Your task to perform on an android device: allow notifications from all sites in the chrome app Image 0: 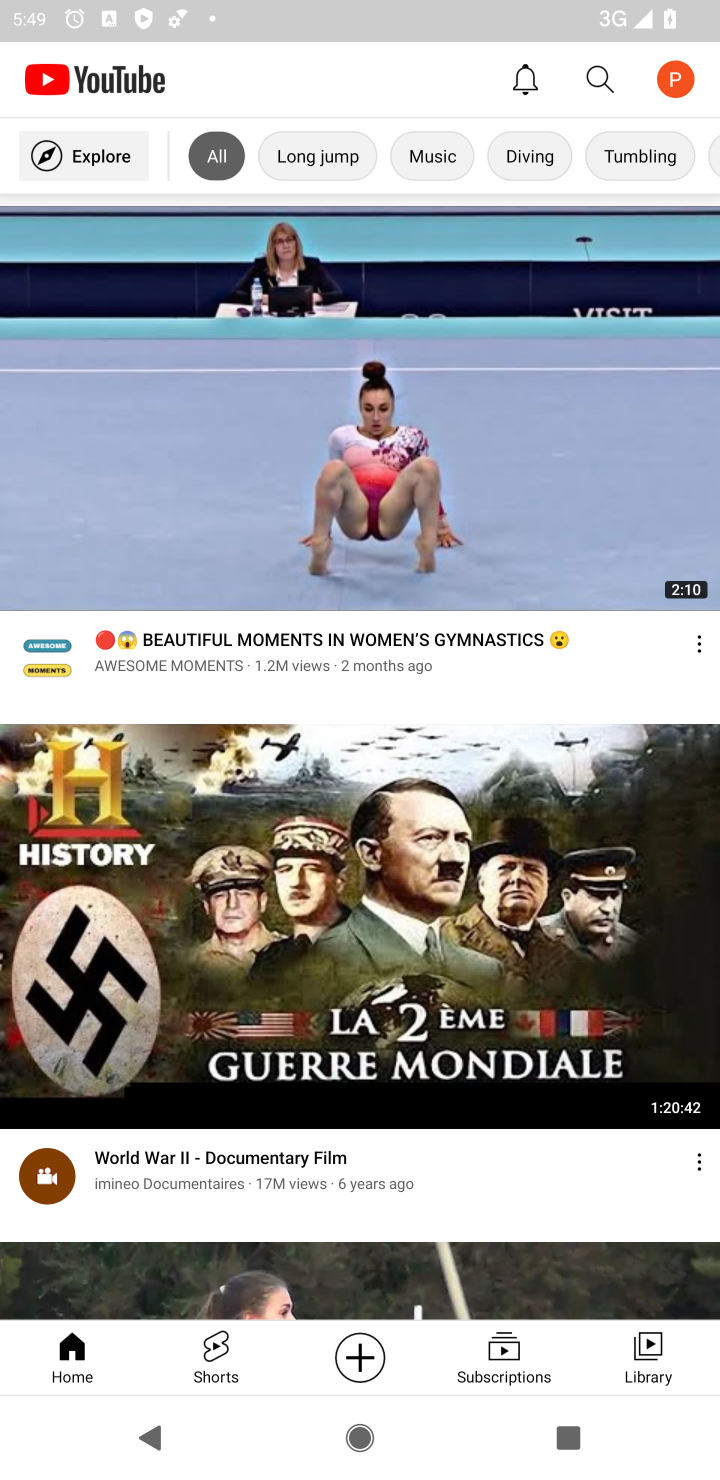
Step 0: press home button
Your task to perform on an android device: allow notifications from all sites in the chrome app Image 1: 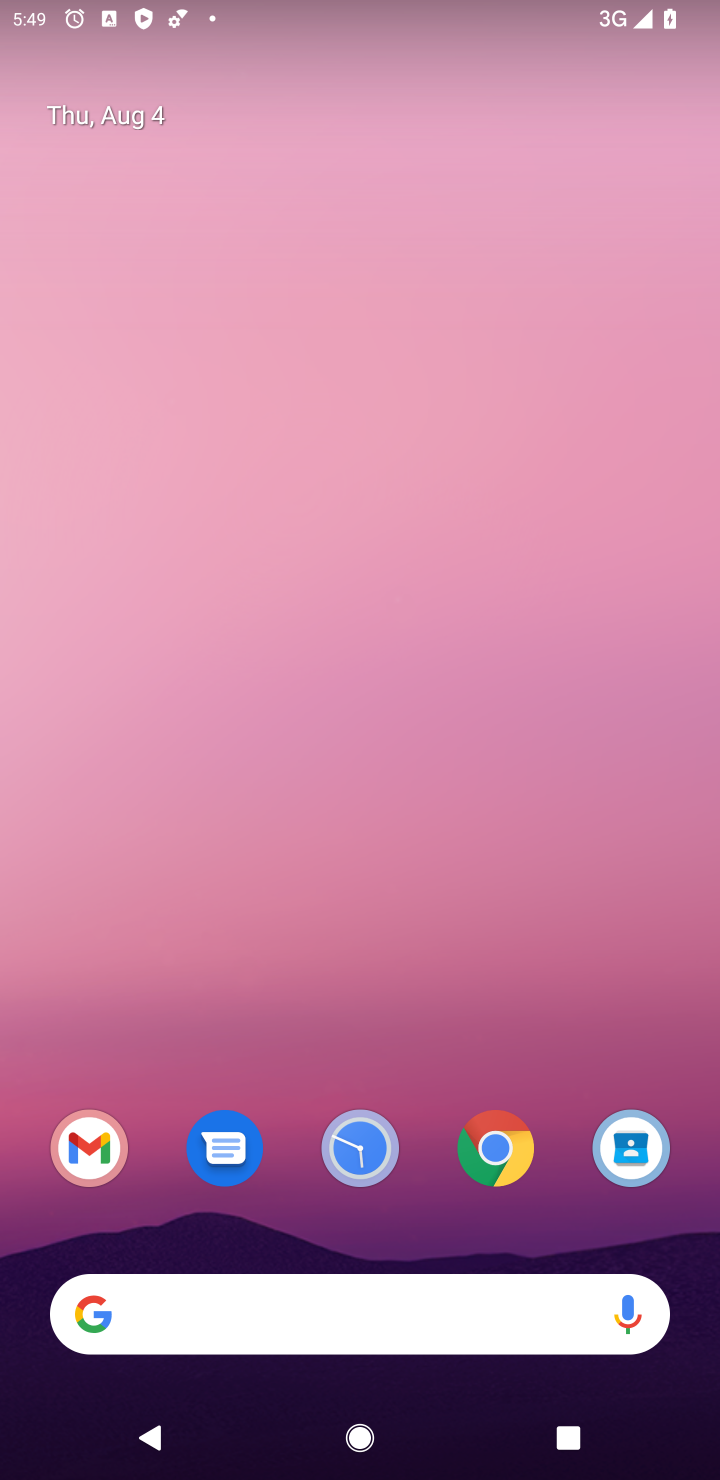
Step 1: click (493, 1150)
Your task to perform on an android device: allow notifications from all sites in the chrome app Image 2: 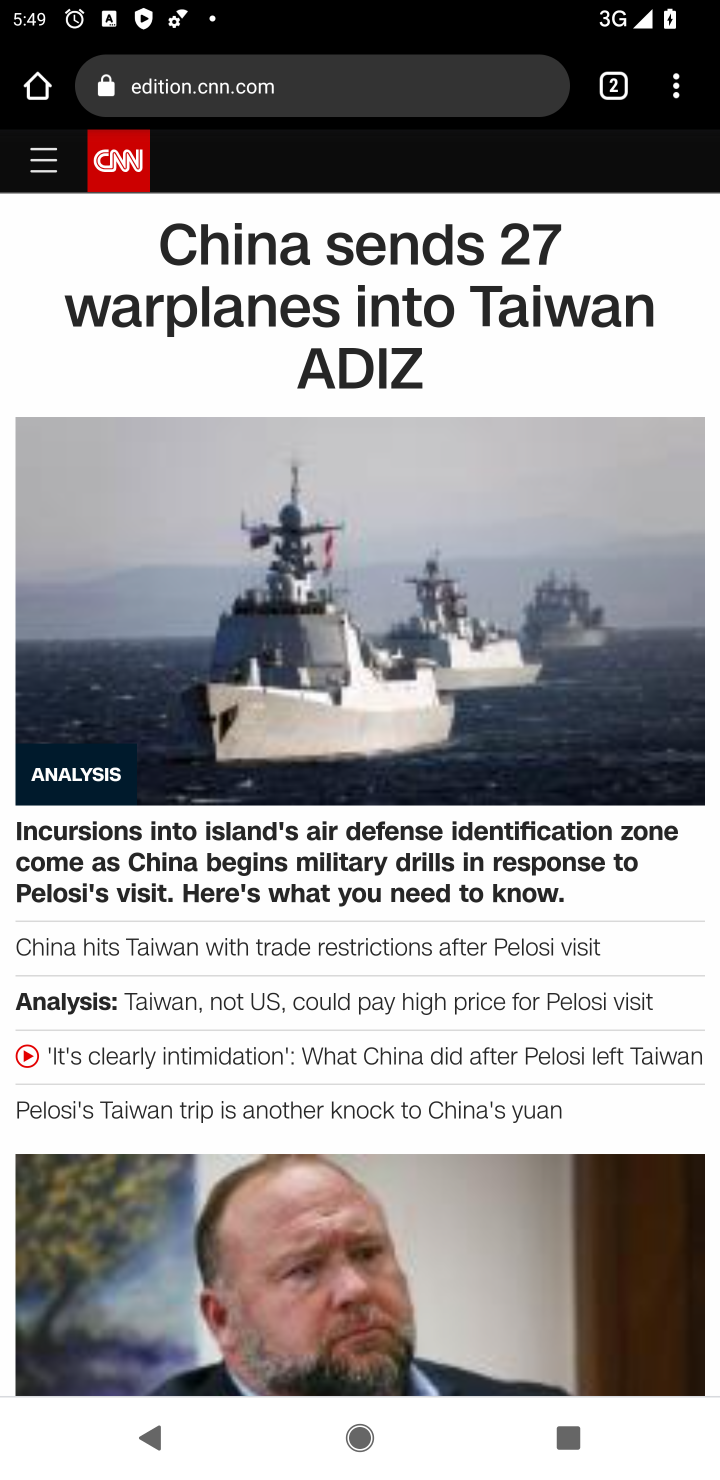
Step 2: click (673, 105)
Your task to perform on an android device: allow notifications from all sites in the chrome app Image 3: 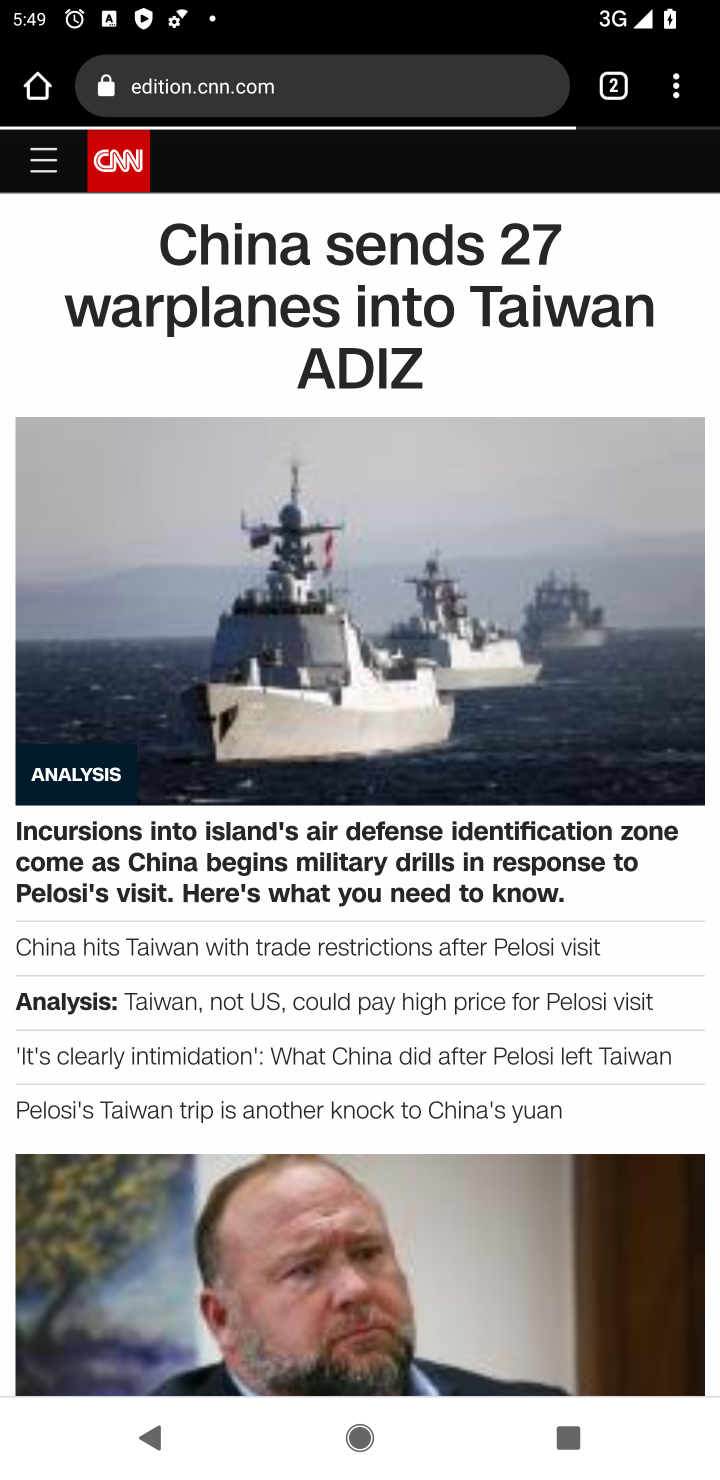
Step 3: click (673, 105)
Your task to perform on an android device: allow notifications from all sites in the chrome app Image 4: 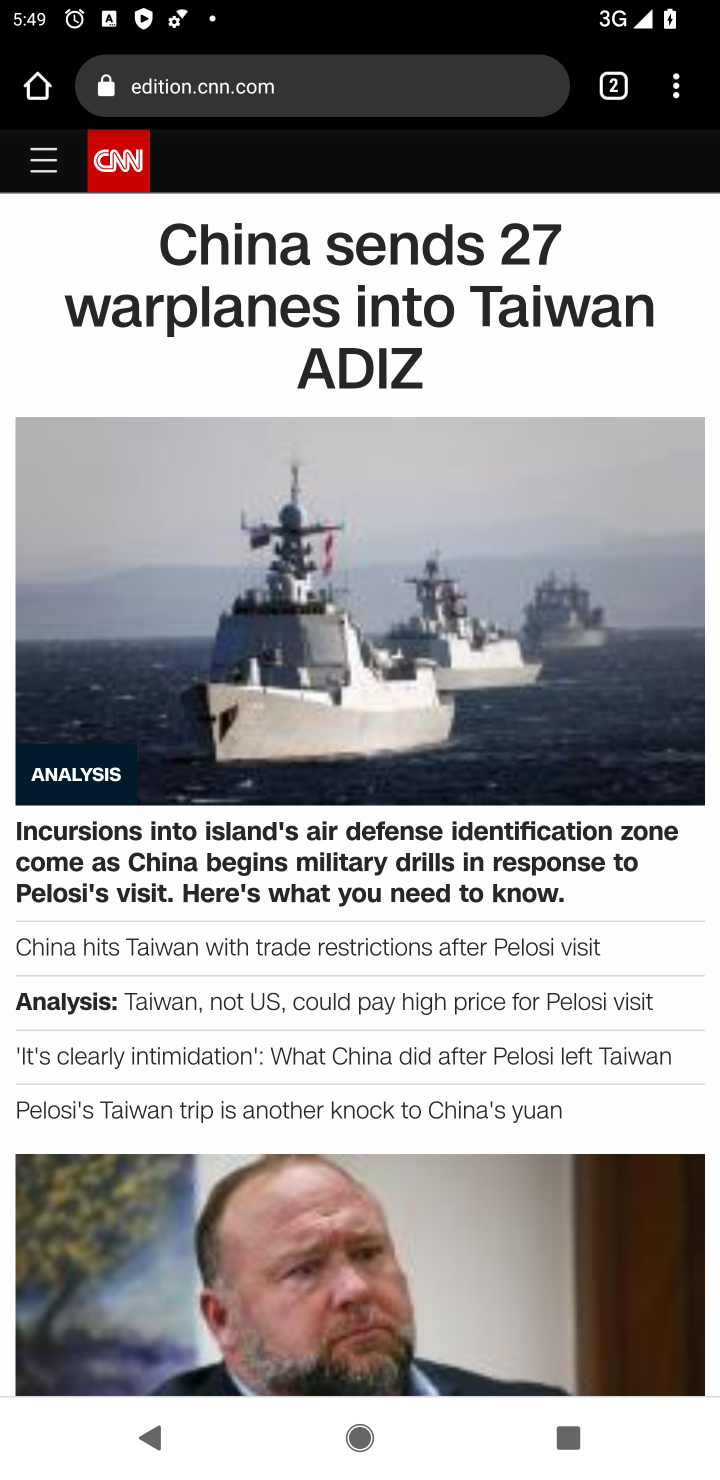
Step 4: click (673, 91)
Your task to perform on an android device: allow notifications from all sites in the chrome app Image 5: 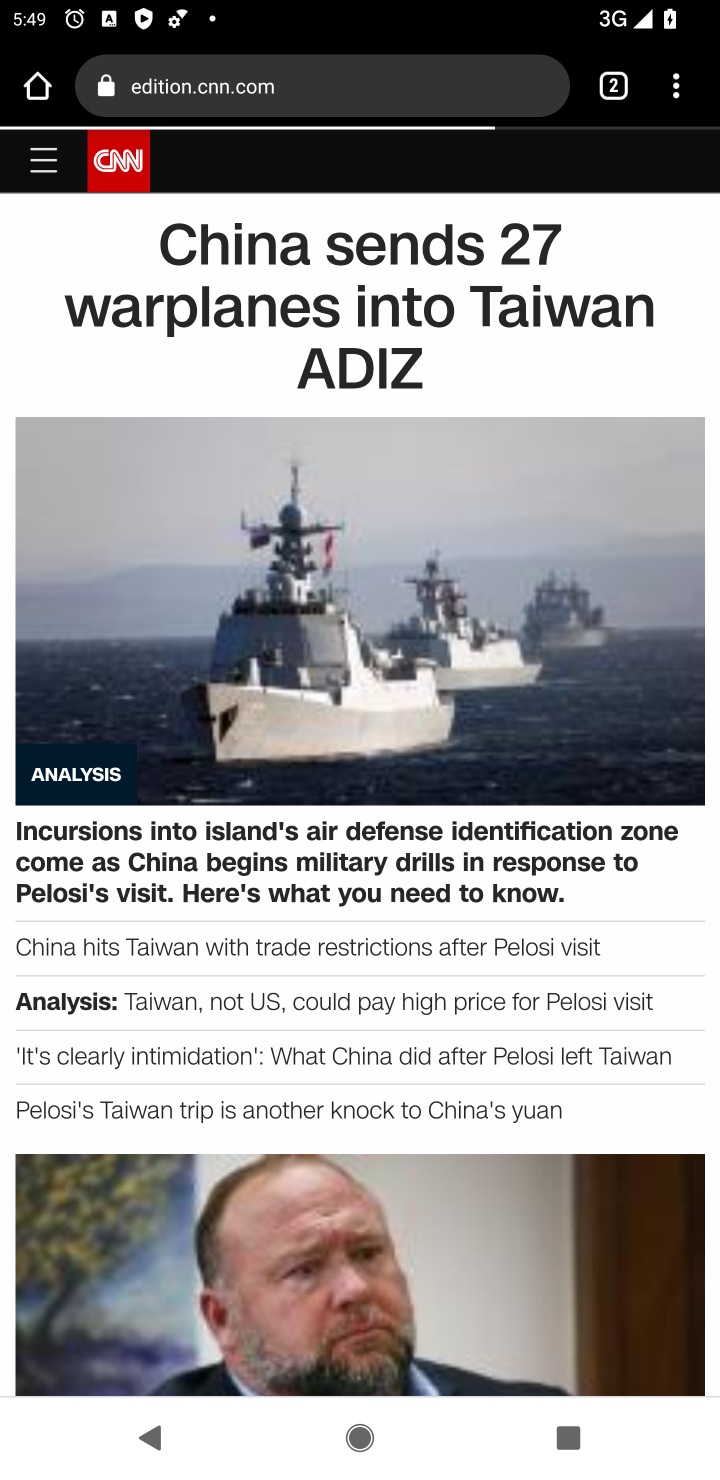
Step 5: click (673, 91)
Your task to perform on an android device: allow notifications from all sites in the chrome app Image 6: 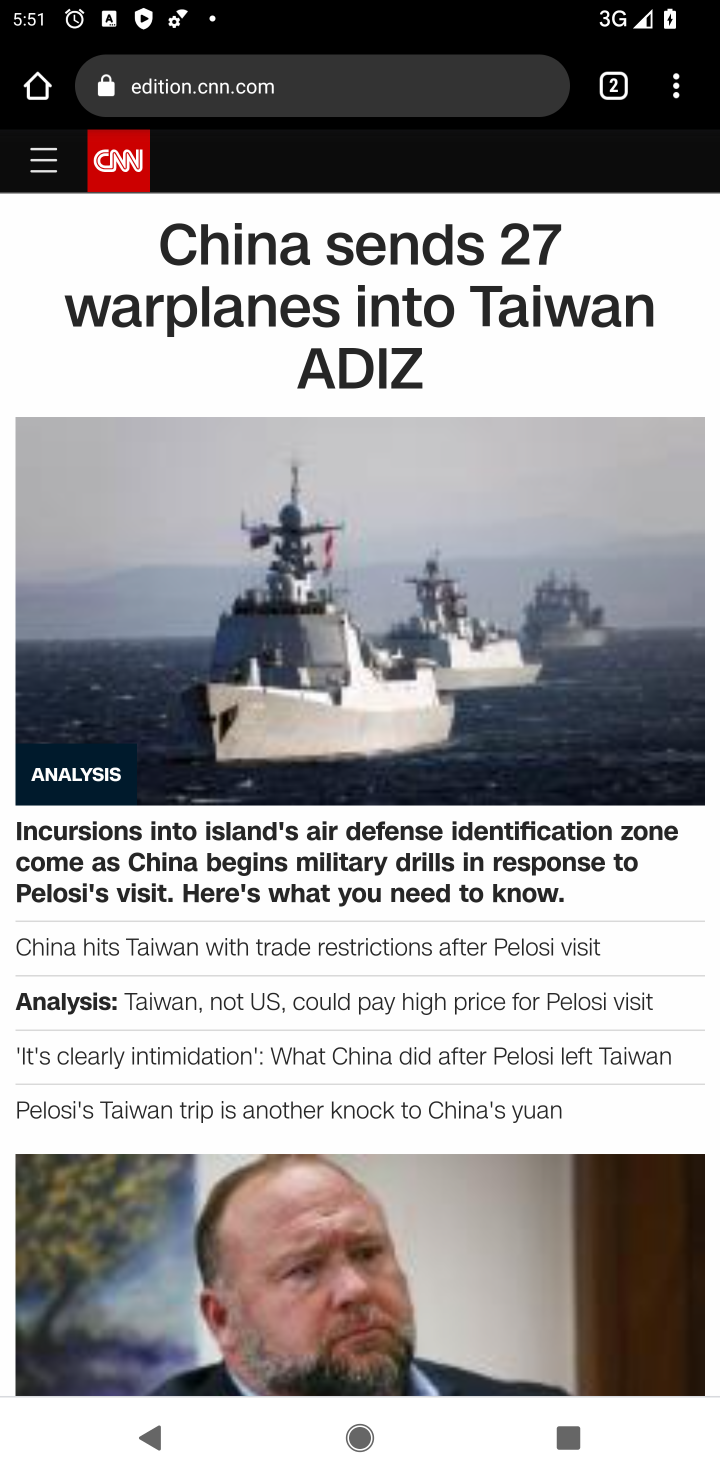
Step 6: task complete